Your task to perform on an android device: Open calendar and show me the second week of next month Image 0: 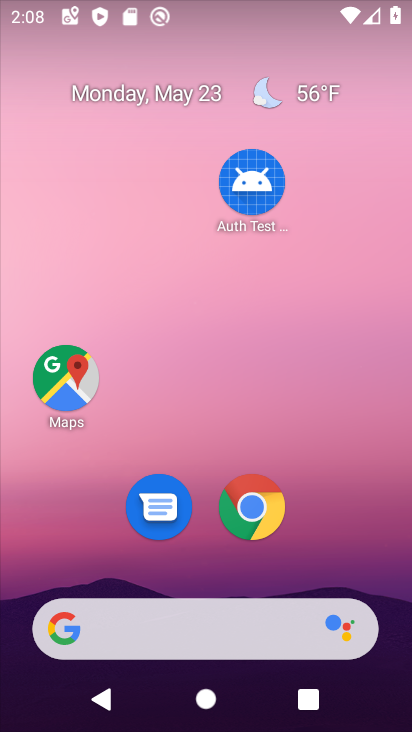
Step 0: drag from (256, 707) to (242, 160)
Your task to perform on an android device: Open calendar and show me the second week of next month Image 1: 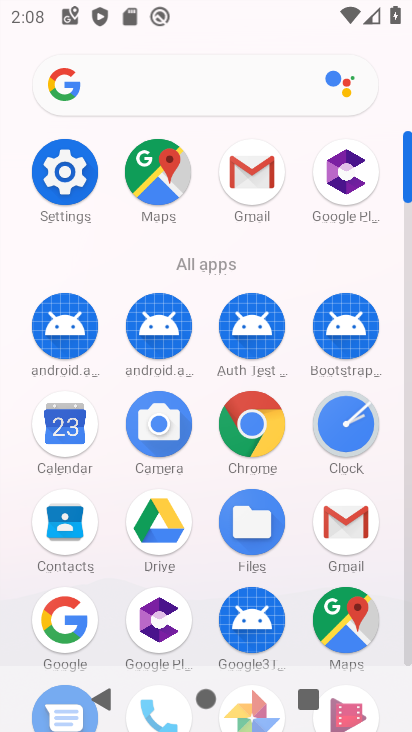
Step 1: click (72, 431)
Your task to perform on an android device: Open calendar and show me the second week of next month Image 2: 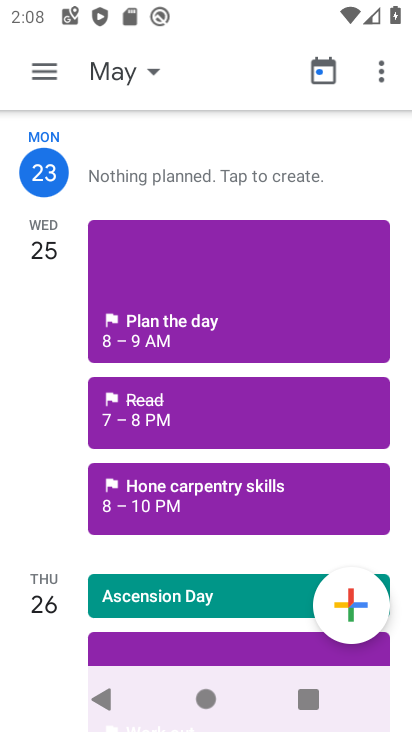
Step 2: click (72, 431)
Your task to perform on an android device: Open calendar and show me the second week of next month Image 3: 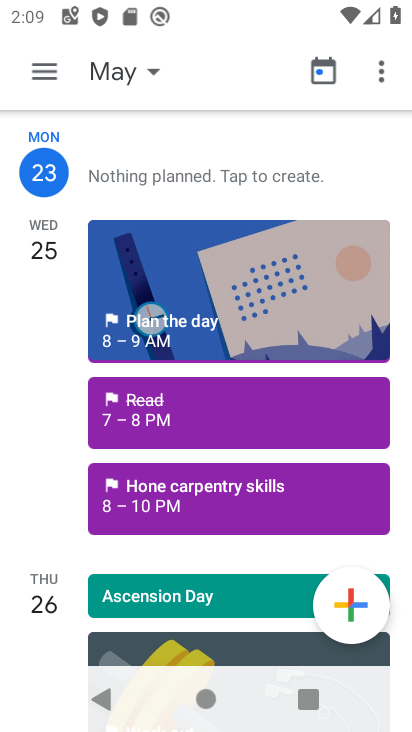
Step 3: click (141, 64)
Your task to perform on an android device: Open calendar and show me the second week of next month Image 4: 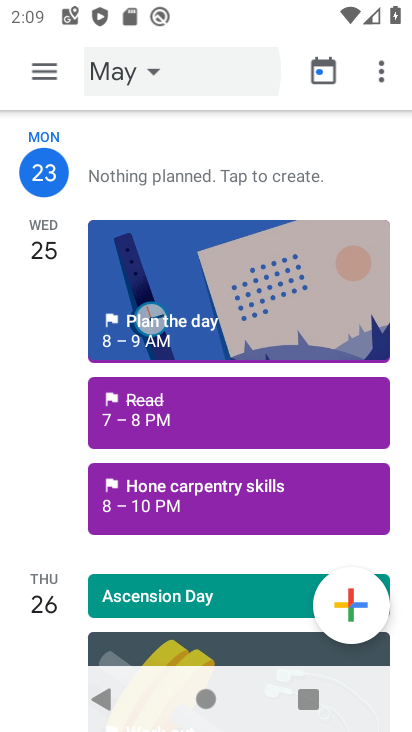
Step 4: click (157, 62)
Your task to perform on an android device: Open calendar and show me the second week of next month Image 5: 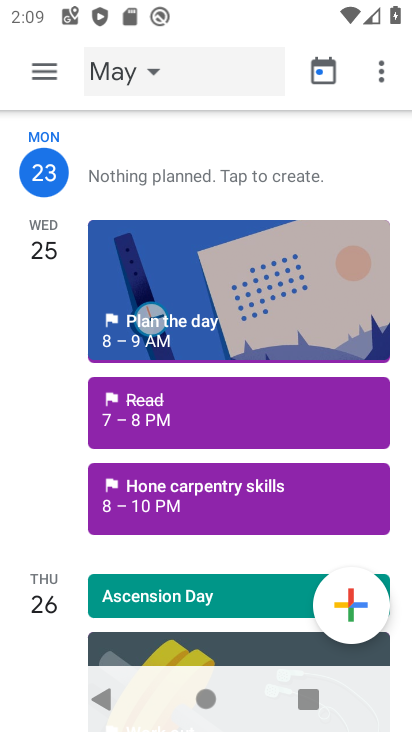
Step 5: click (157, 62)
Your task to perform on an android device: Open calendar and show me the second week of next month Image 6: 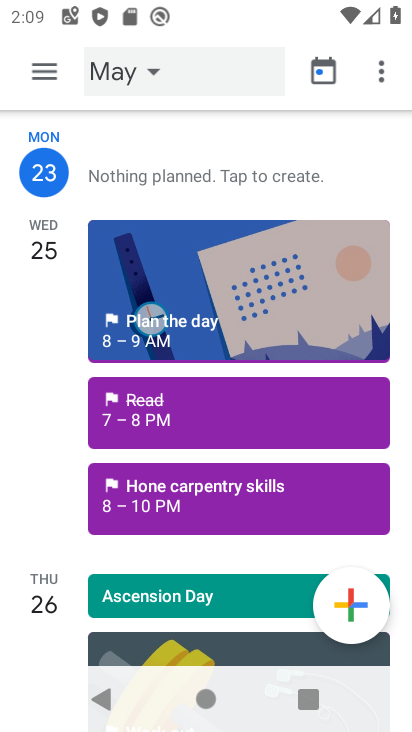
Step 6: click (152, 68)
Your task to perform on an android device: Open calendar and show me the second week of next month Image 7: 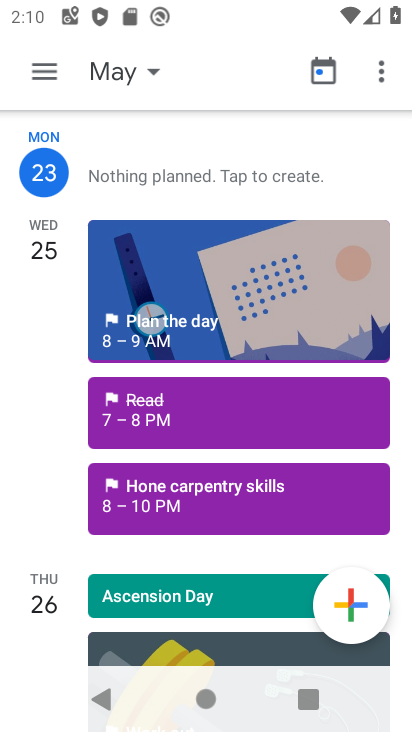
Step 7: click (149, 65)
Your task to perform on an android device: Open calendar and show me the second week of next month Image 8: 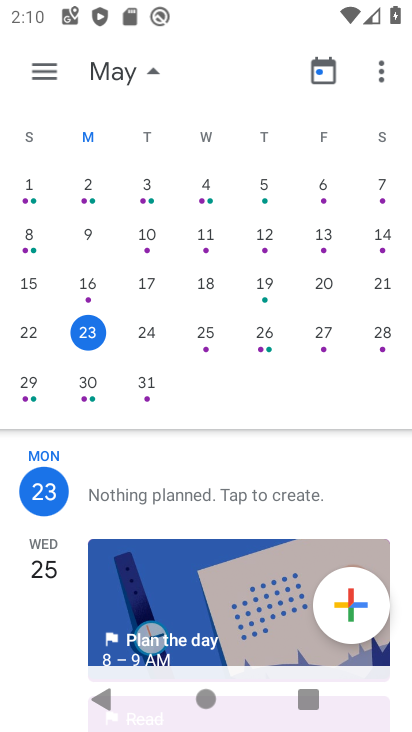
Step 8: drag from (242, 241) to (0, 187)
Your task to perform on an android device: Open calendar and show me the second week of next month Image 9: 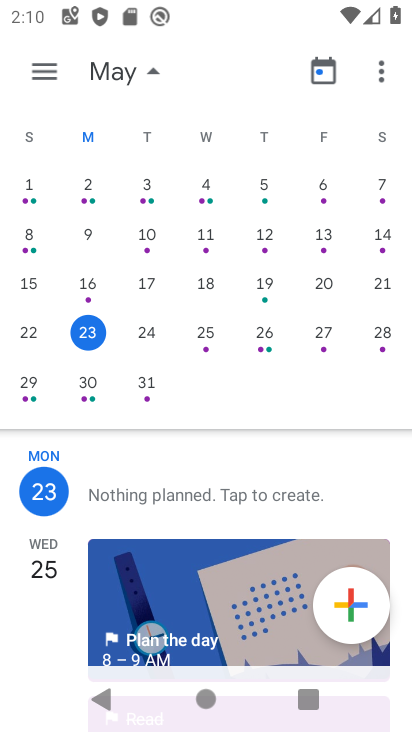
Step 9: drag from (258, 279) to (25, 389)
Your task to perform on an android device: Open calendar and show me the second week of next month Image 10: 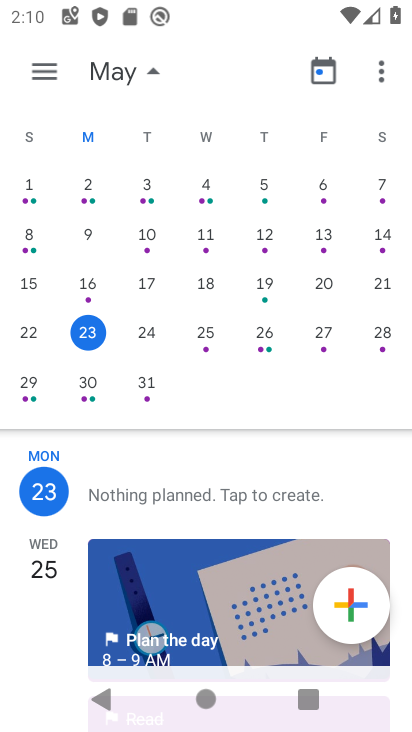
Step 10: drag from (46, 317) to (11, 299)
Your task to perform on an android device: Open calendar and show me the second week of next month Image 11: 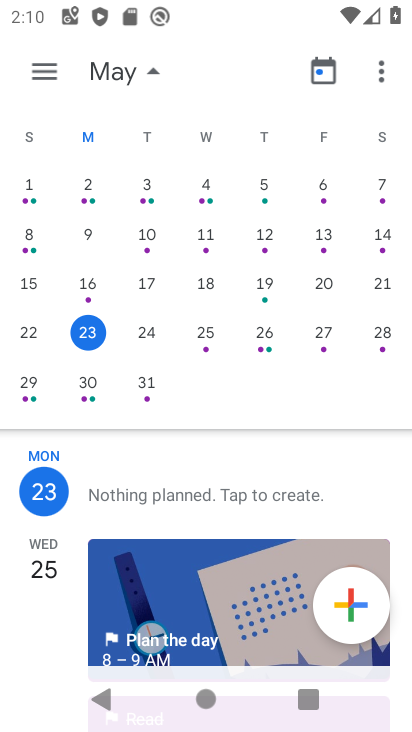
Step 11: drag from (190, 302) to (48, 291)
Your task to perform on an android device: Open calendar and show me the second week of next month Image 12: 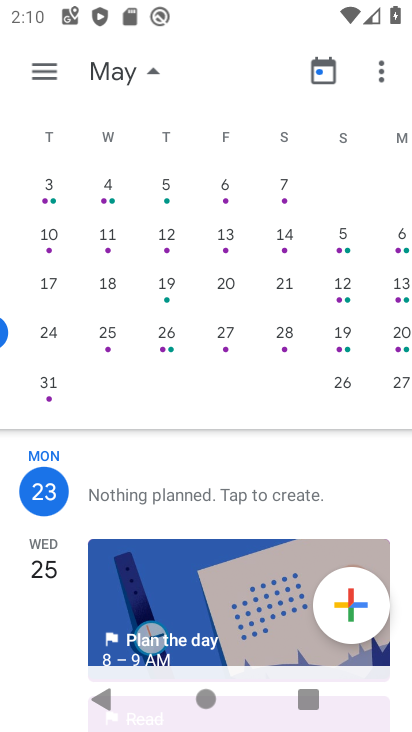
Step 12: drag from (283, 327) to (18, 358)
Your task to perform on an android device: Open calendar and show me the second week of next month Image 13: 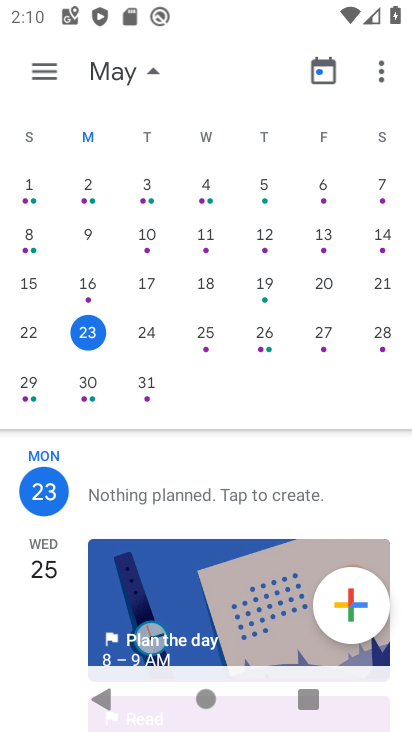
Step 13: drag from (240, 267) to (3, 309)
Your task to perform on an android device: Open calendar and show me the second week of next month Image 14: 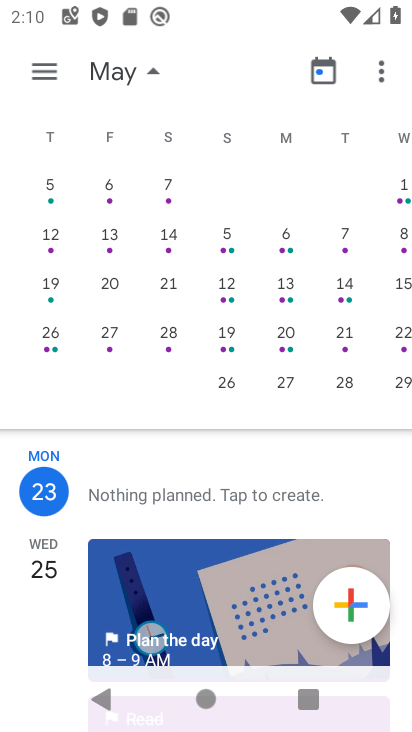
Step 14: drag from (170, 275) to (3, 324)
Your task to perform on an android device: Open calendar and show me the second week of next month Image 15: 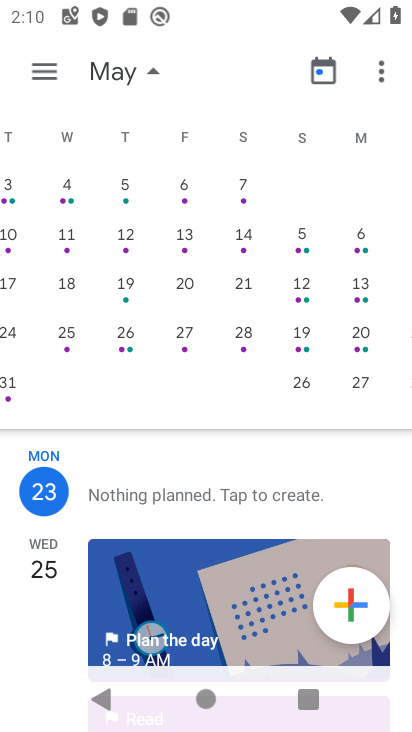
Step 15: drag from (274, 274) to (6, 325)
Your task to perform on an android device: Open calendar and show me the second week of next month Image 16: 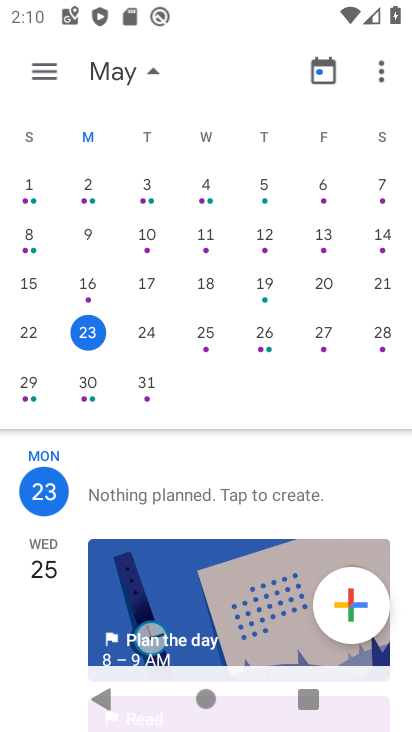
Step 16: drag from (224, 273) to (112, 357)
Your task to perform on an android device: Open calendar and show me the second week of next month Image 17: 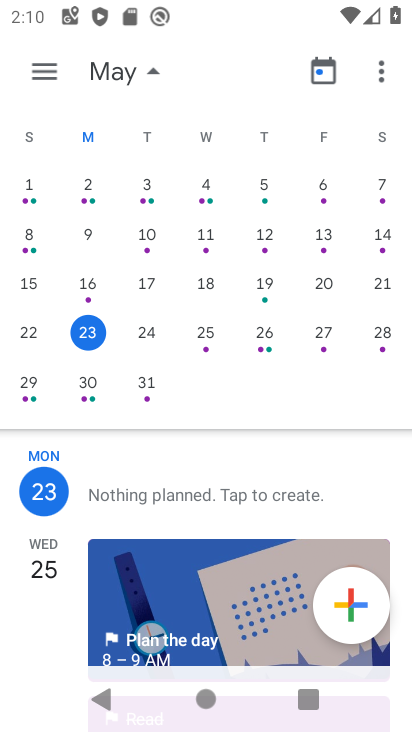
Step 17: drag from (225, 297) to (53, 381)
Your task to perform on an android device: Open calendar and show me the second week of next month Image 18: 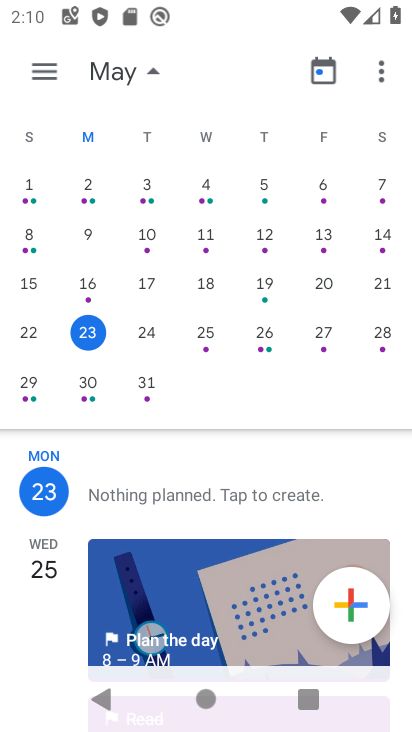
Step 18: drag from (127, 282) to (8, 300)
Your task to perform on an android device: Open calendar and show me the second week of next month Image 19: 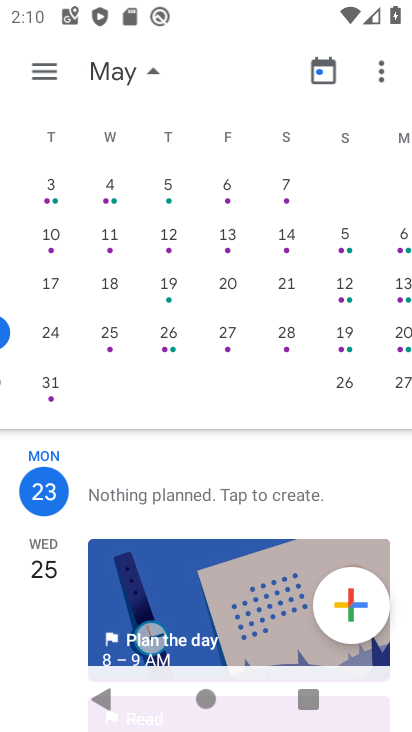
Step 19: drag from (143, 282) to (11, 382)
Your task to perform on an android device: Open calendar and show me the second week of next month Image 20: 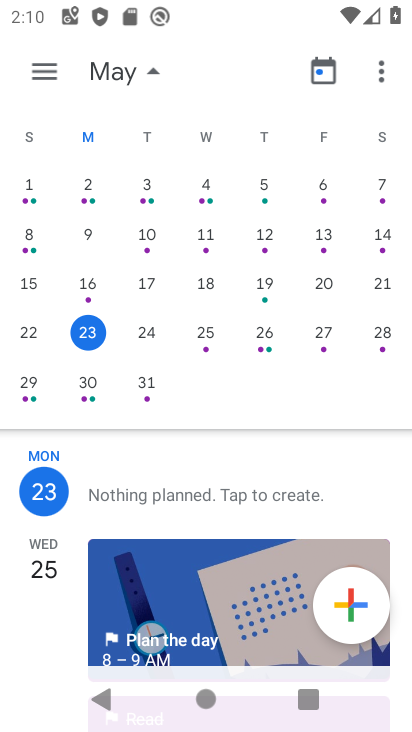
Step 20: drag from (208, 278) to (40, 344)
Your task to perform on an android device: Open calendar and show me the second week of next month Image 21: 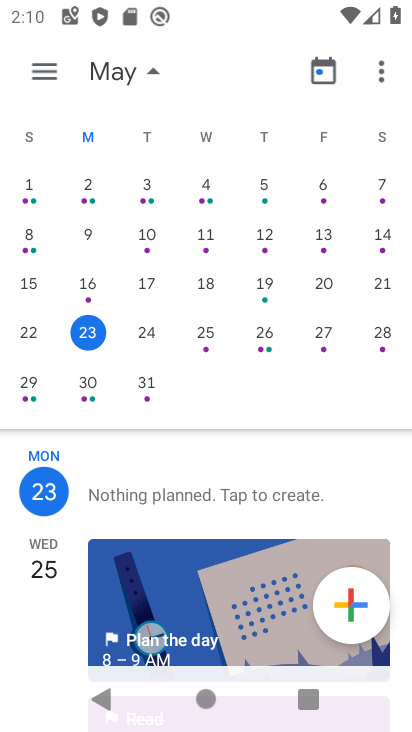
Step 21: drag from (238, 287) to (44, 364)
Your task to perform on an android device: Open calendar and show me the second week of next month Image 22: 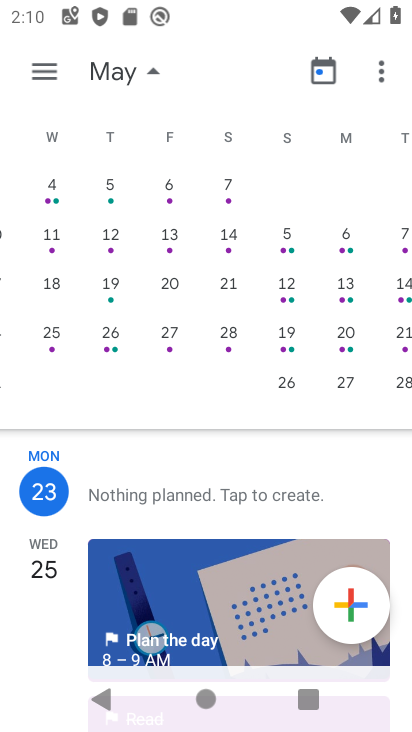
Step 22: drag from (200, 288) to (28, 358)
Your task to perform on an android device: Open calendar and show me the second week of next month Image 23: 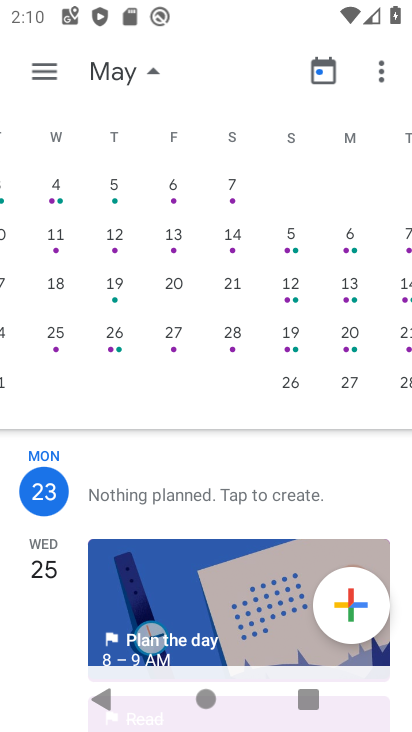
Step 23: drag from (219, 281) to (33, 366)
Your task to perform on an android device: Open calendar and show me the second week of next month Image 24: 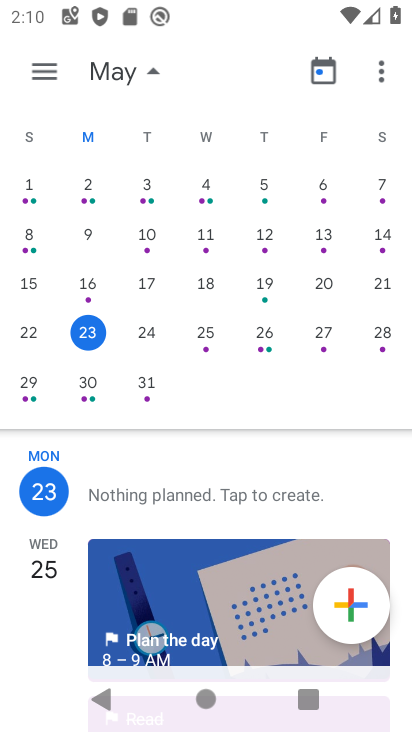
Step 24: drag from (152, 349) to (76, 437)
Your task to perform on an android device: Open calendar and show me the second week of next month Image 25: 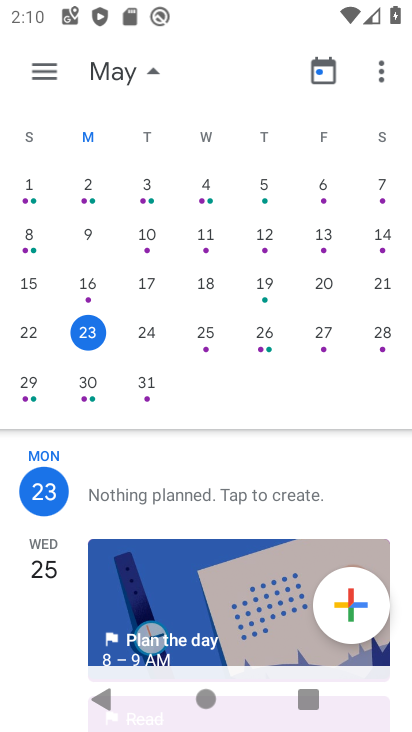
Step 25: drag from (230, 265) to (88, 325)
Your task to perform on an android device: Open calendar and show me the second week of next month Image 26: 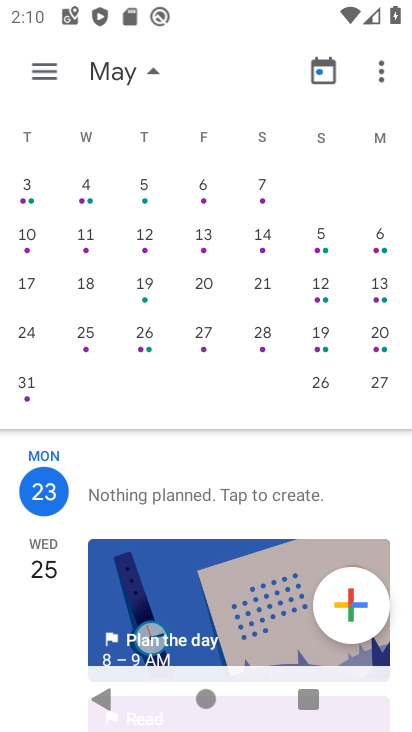
Step 26: drag from (21, 339) to (5, 286)
Your task to perform on an android device: Open calendar and show me the second week of next month Image 27: 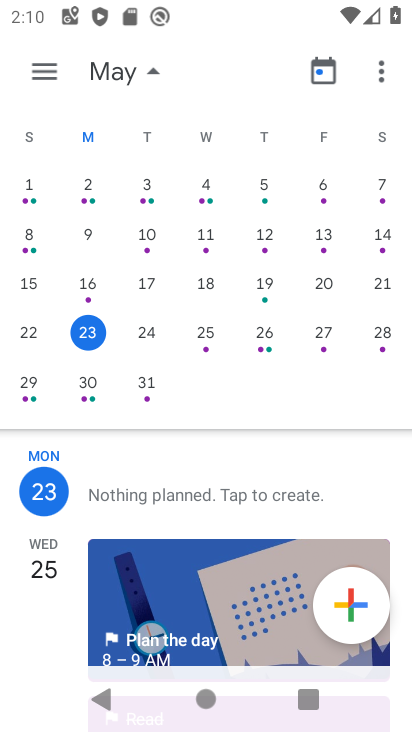
Step 27: drag from (142, 325) to (21, 382)
Your task to perform on an android device: Open calendar and show me the second week of next month Image 28: 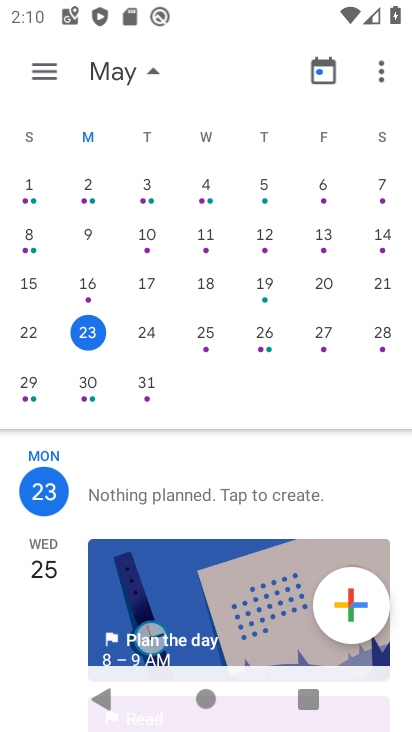
Step 28: click (27, 332)
Your task to perform on an android device: Open calendar and show me the second week of next month Image 29: 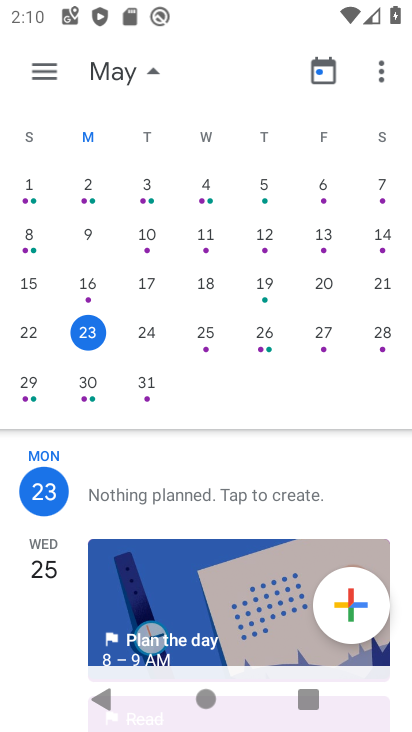
Step 29: drag from (261, 313) to (28, 375)
Your task to perform on an android device: Open calendar and show me the second week of next month Image 30: 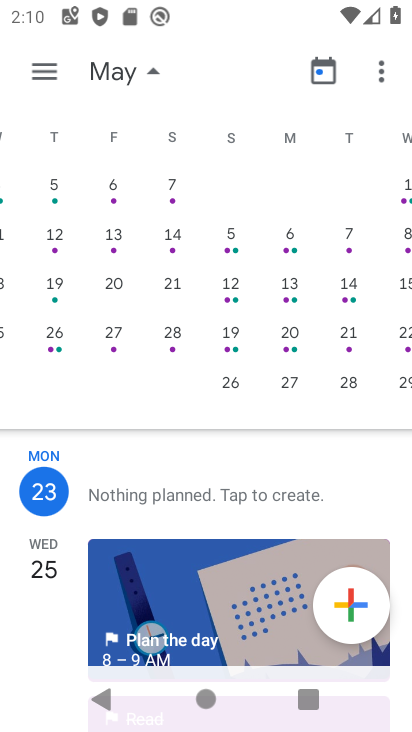
Step 30: drag from (266, 293) to (10, 325)
Your task to perform on an android device: Open calendar and show me the second week of next month Image 31: 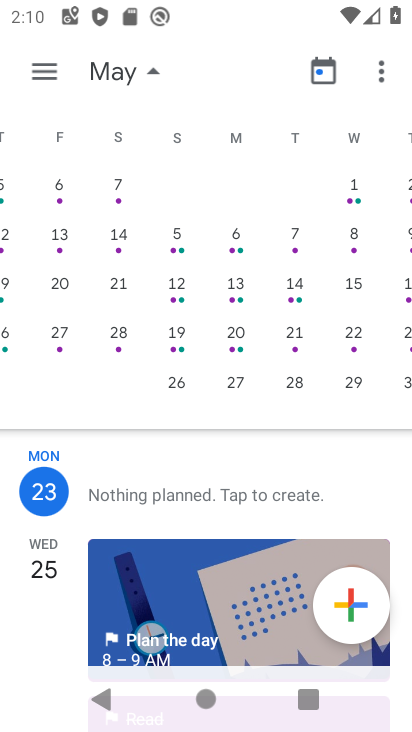
Step 31: drag from (266, 259) to (36, 317)
Your task to perform on an android device: Open calendar and show me the second week of next month Image 32: 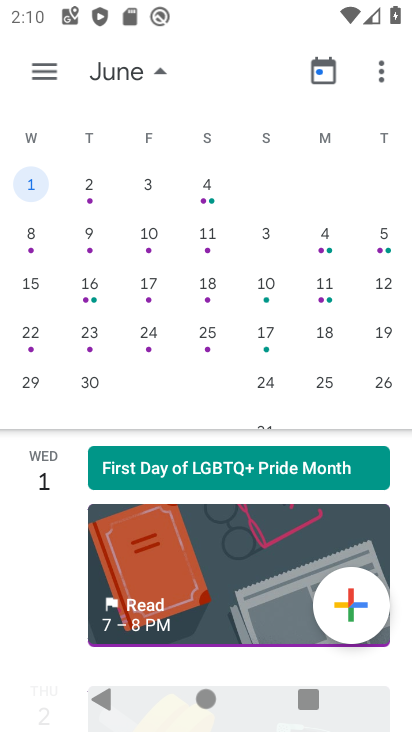
Step 32: drag from (53, 311) to (1, 334)
Your task to perform on an android device: Open calendar and show me the second week of next month Image 33: 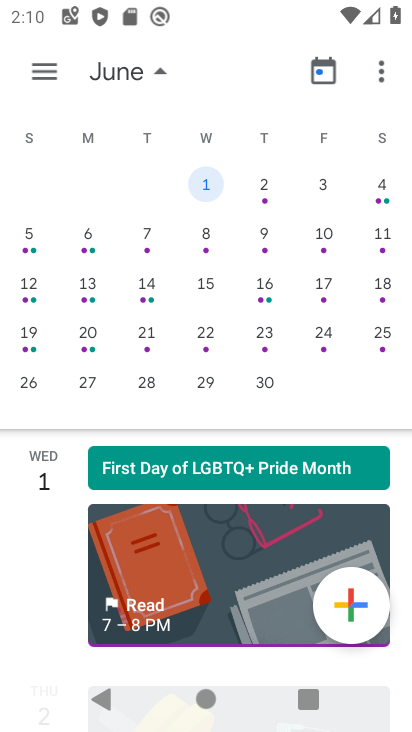
Step 33: click (205, 235)
Your task to perform on an android device: Open calendar and show me the second week of next month Image 34: 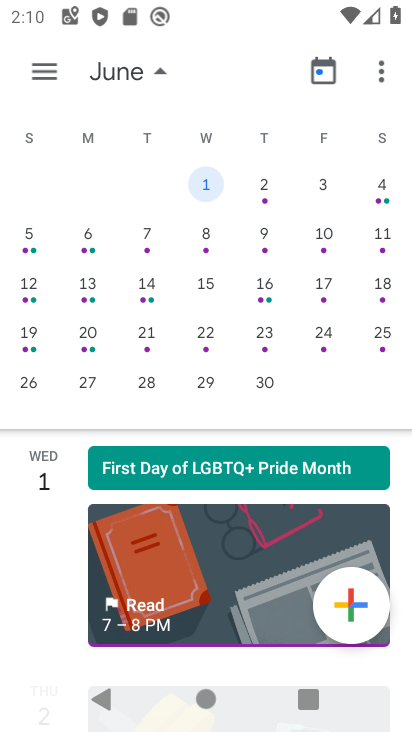
Step 34: click (205, 235)
Your task to perform on an android device: Open calendar and show me the second week of next month Image 35: 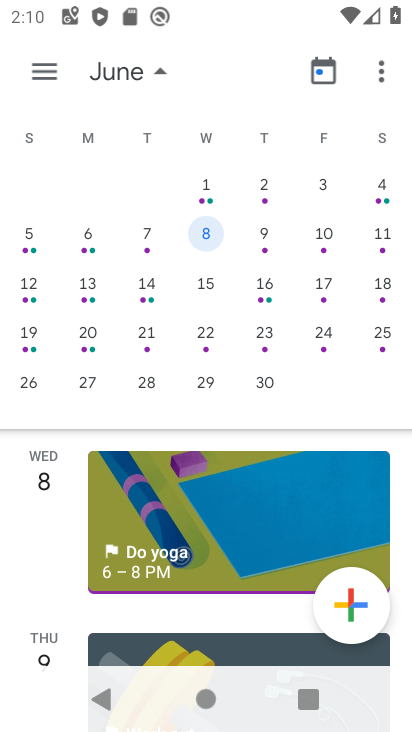
Step 35: click (205, 235)
Your task to perform on an android device: Open calendar and show me the second week of next month Image 36: 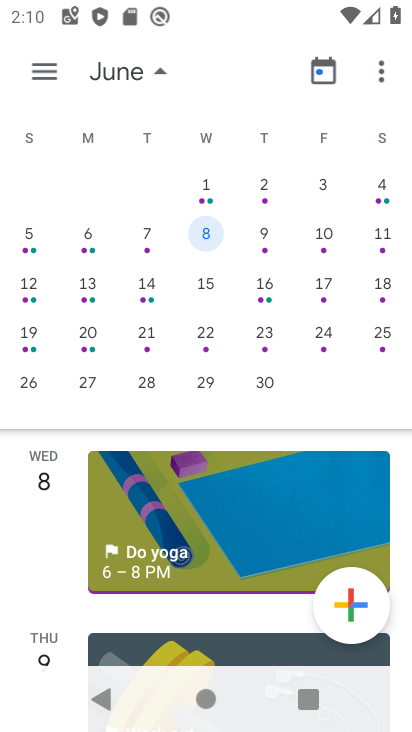
Step 36: task complete